Your task to perform on an android device: When is my next meeting? Image 0: 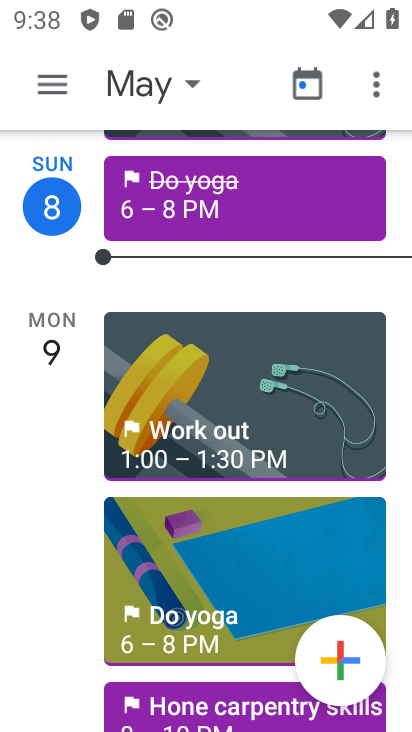
Step 0: press home button
Your task to perform on an android device: When is my next meeting? Image 1: 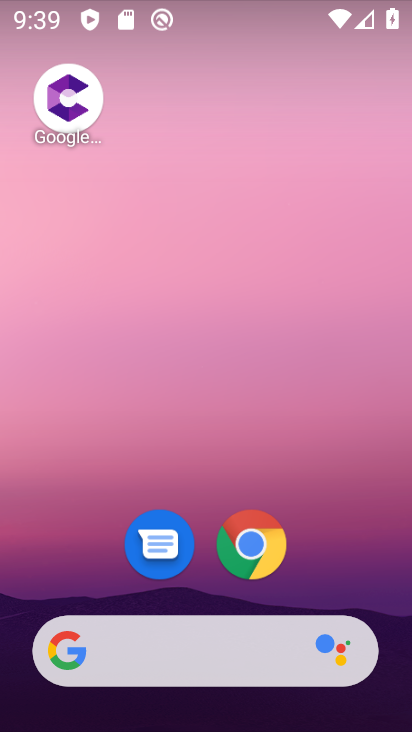
Step 1: drag from (392, 595) to (381, 115)
Your task to perform on an android device: When is my next meeting? Image 2: 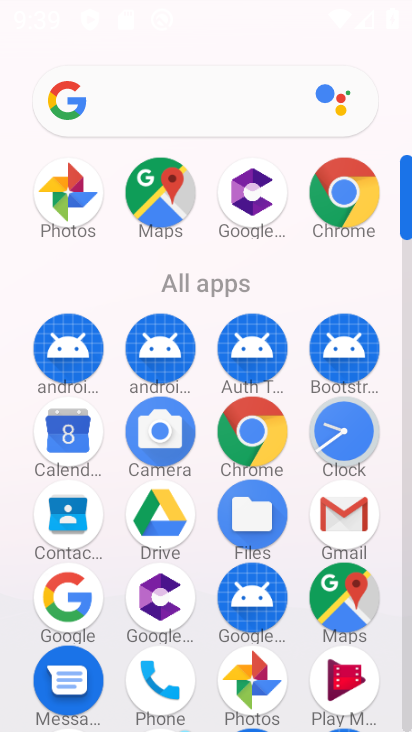
Step 2: click (91, 439)
Your task to perform on an android device: When is my next meeting? Image 3: 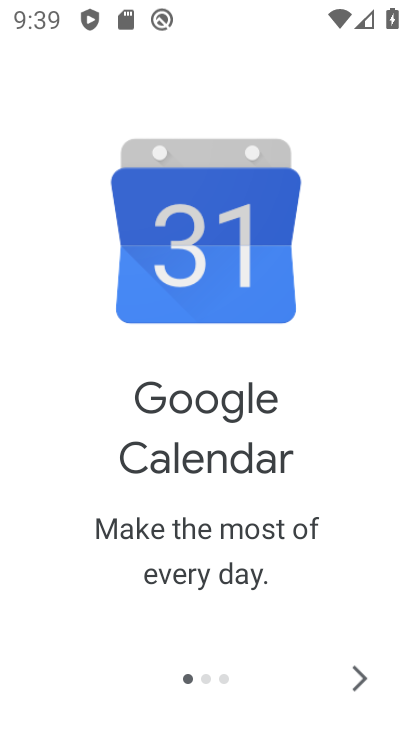
Step 3: click (362, 684)
Your task to perform on an android device: When is my next meeting? Image 4: 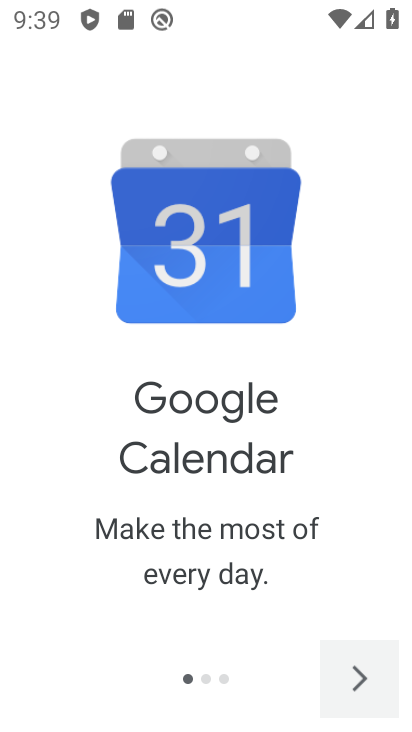
Step 4: click (362, 684)
Your task to perform on an android device: When is my next meeting? Image 5: 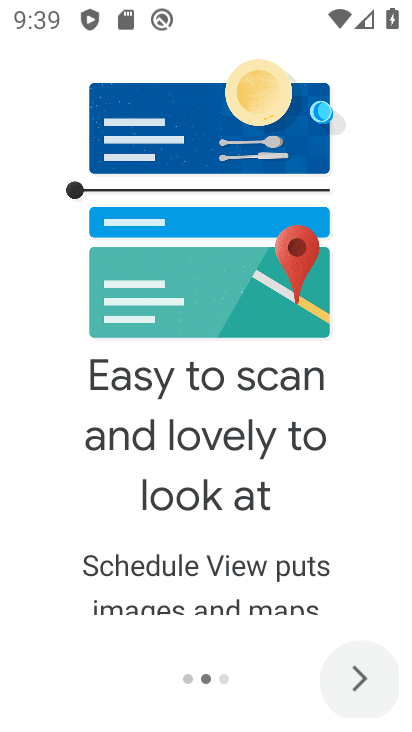
Step 5: click (362, 684)
Your task to perform on an android device: When is my next meeting? Image 6: 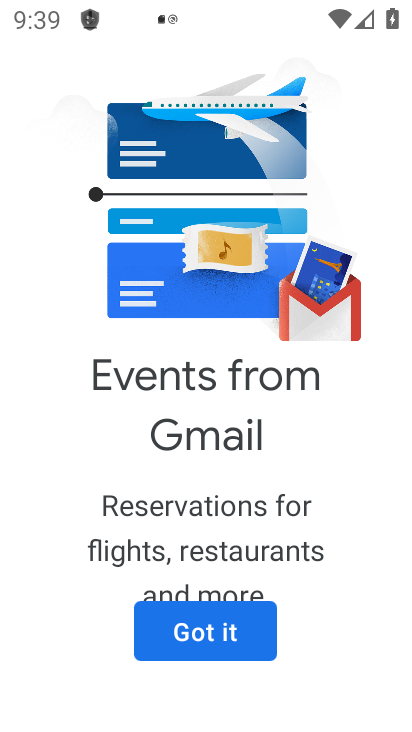
Step 6: click (147, 630)
Your task to perform on an android device: When is my next meeting? Image 7: 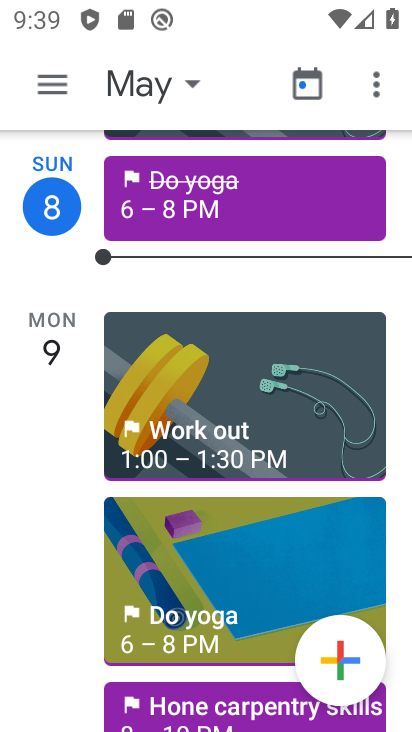
Step 7: click (34, 89)
Your task to perform on an android device: When is my next meeting? Image 8: 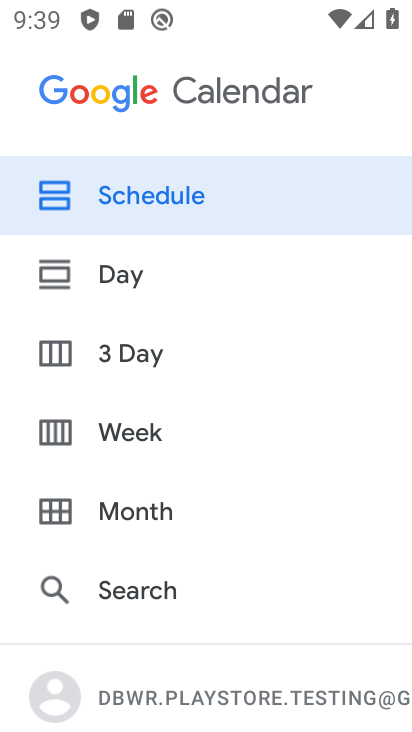
Step 8: click (136, 209)
Your task to perform on an android device: When is my next meeting? Image 9: 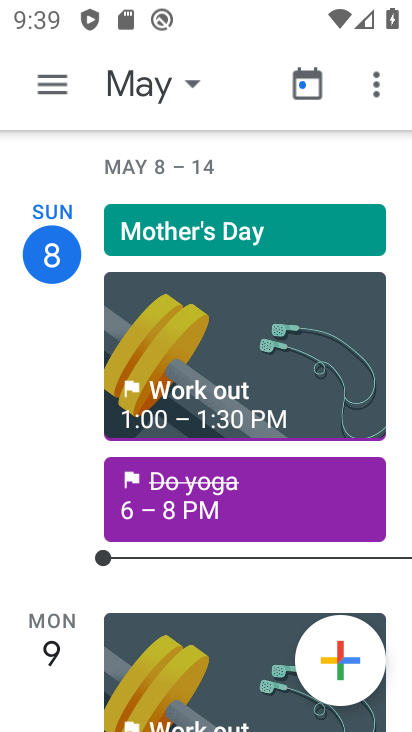
Step 9: click (177, 78)
Your task to perform on an android device: When is my next meeting? Image 10: 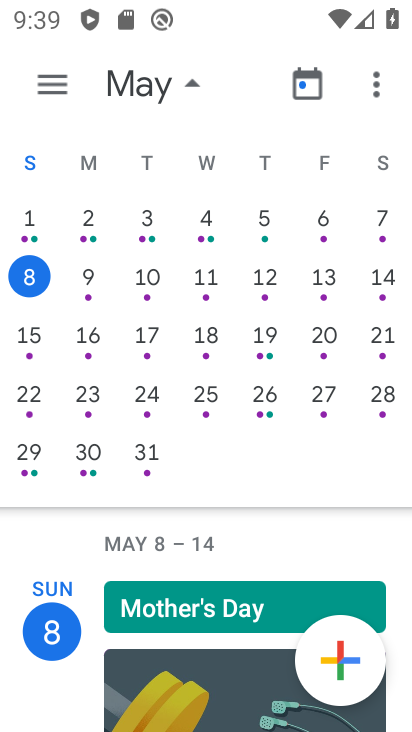
Step 10: click (158, 100)
Your task to perform on an android device: When is my next meeting? Image 11: 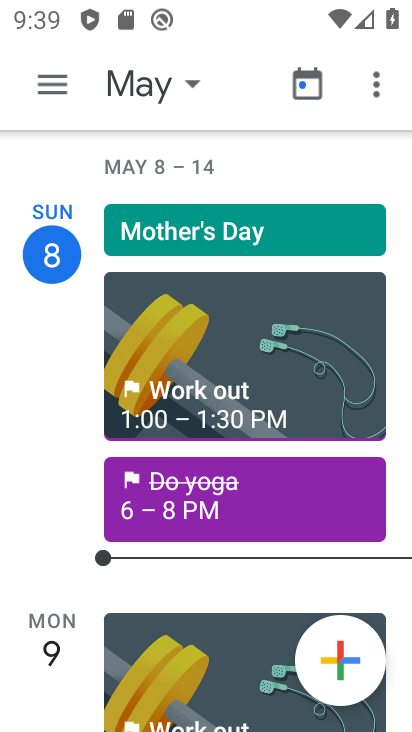
Step 11: task complete